Your task to perform on an android device: Check the news Image 0: 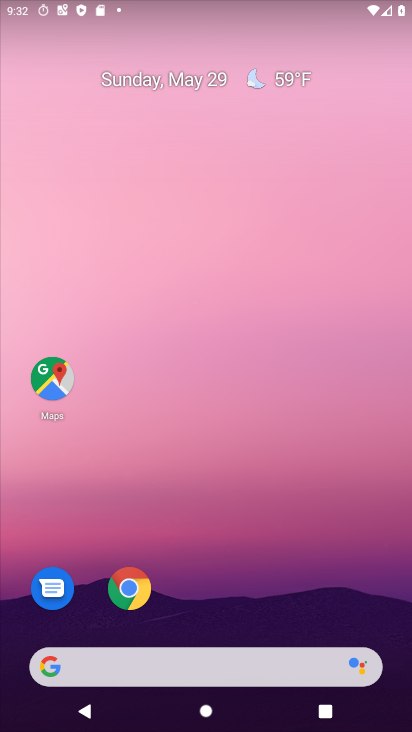
Step 0: drag from (197, 618) to (308, 10)
Your task to perform on an android device: Check the news Image 1: 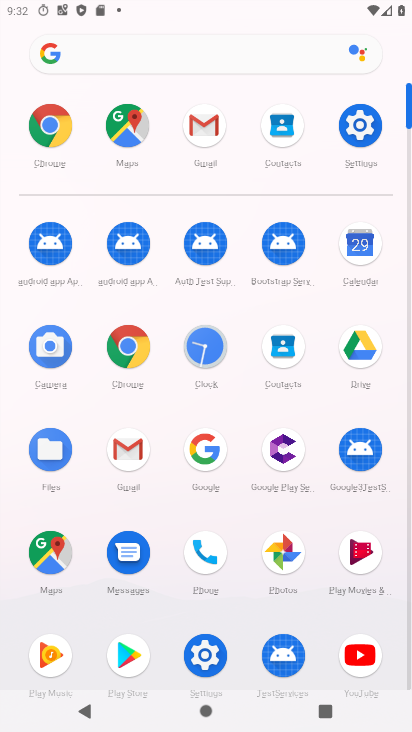
Step 1: click (213, 32)
Your task to perform on an android device: Check the news Image 2: 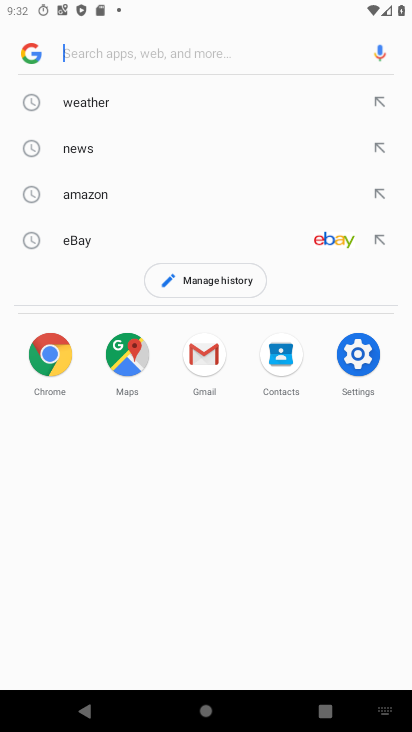
Step 2: click (83, 144)
Your task to perform on an android device: Check the news Image 3: 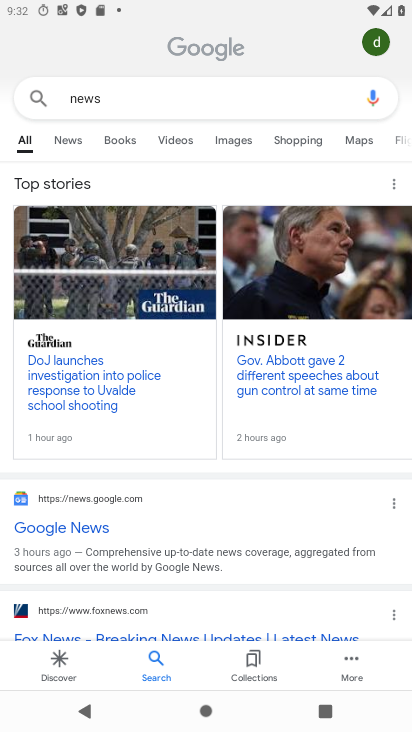
Step 3: task complete